Your task to perform on an android device: turn on priority inbox in the gmail app Image 0: 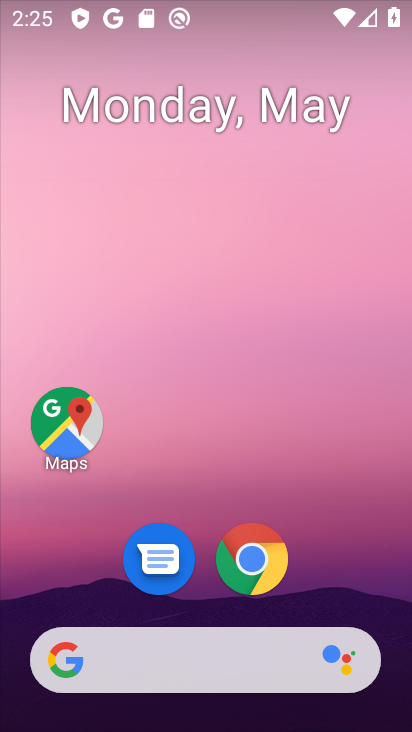
Step 0: drag from (351, 583) to (385, 0)
Your task to perform on an android device: turn on priority inbox in the gmail app Image 1: 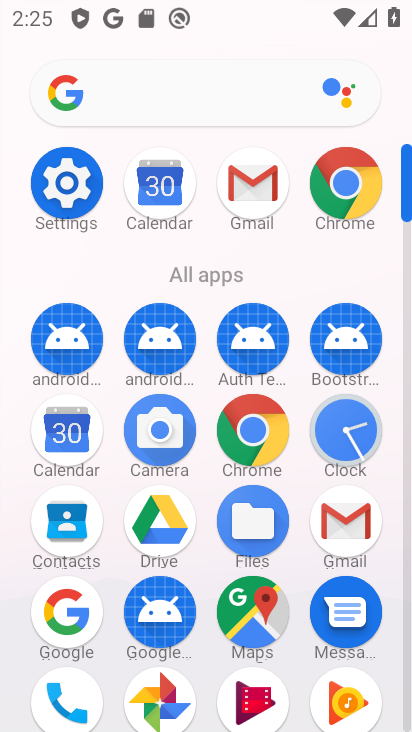
Step 1: click (358, 518)
Your task to perform on an android device: turn on priority inbox in the gmail app Image 2: 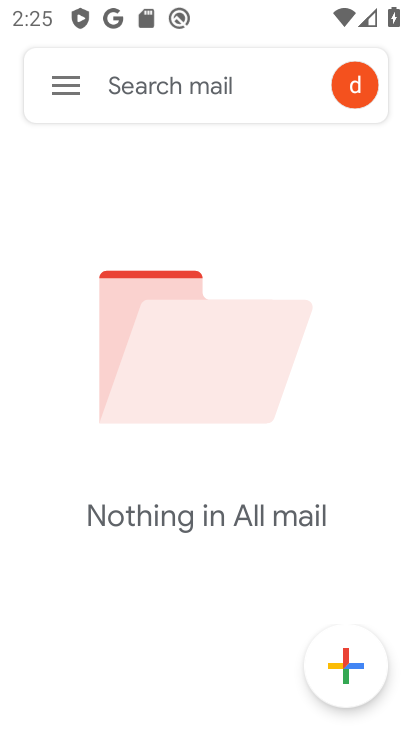
Step 2: click (71, 94)
Your task to perform on an android device: turn on priority inbox in the gmail app Image 3: 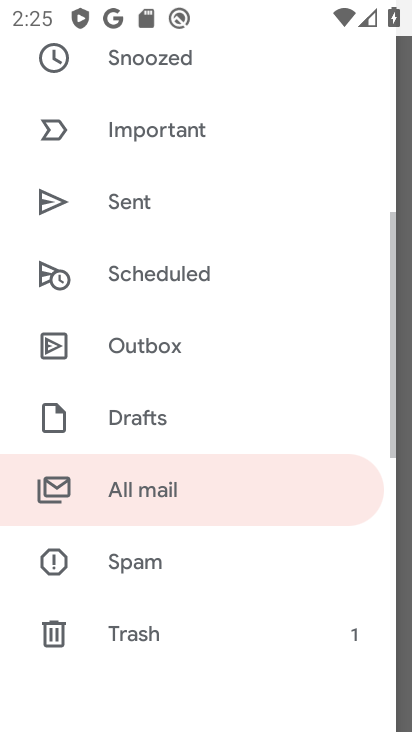
Step 3: drag from (185, 563) to (231, 153)
Your task to perform on an android device: turn on priority inbox in the gmail app Image 4: 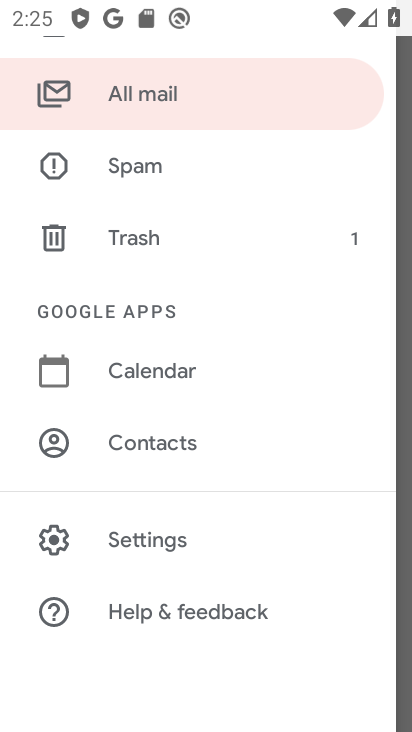
Step 4: click (170, 544)
Your task to perform on an android device: turn on priority inbox in the gmail app Image 5: 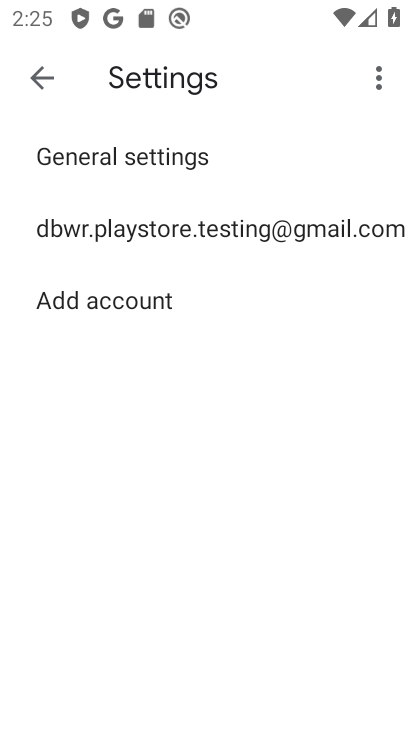
Step 5: click (121, 230)
Your task to perform on an android device: turn on priority inbox in the gmail app Image 6: 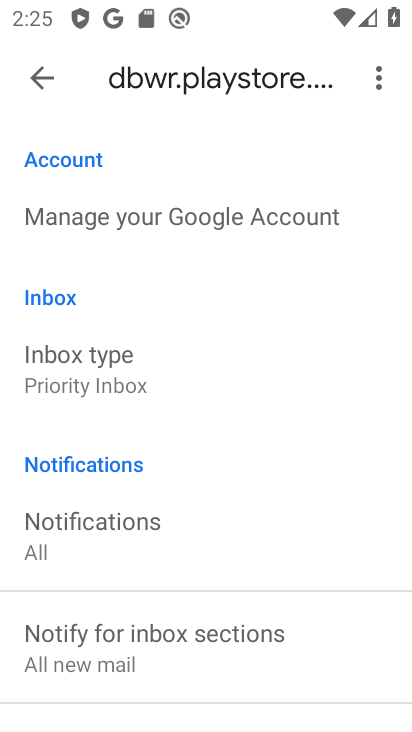
Step 6: click (91, 364)
Your task to perform on an android device: turn on priority inbox in the gmail app Image 7: 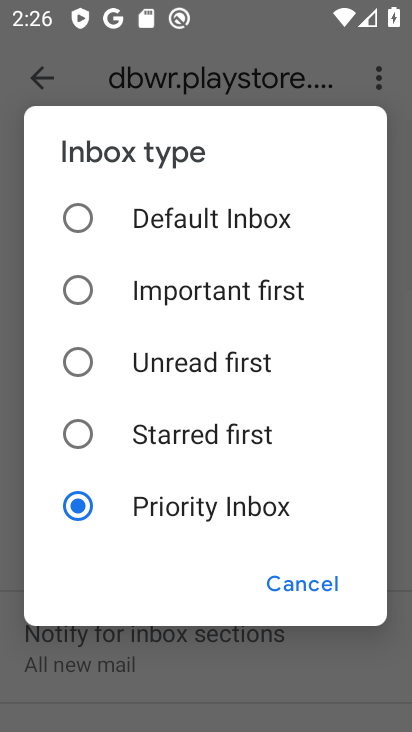
Step 7: click (169, 509)
Your task to perform on an android device: turn on priority inbox in the gmail app Image 8: 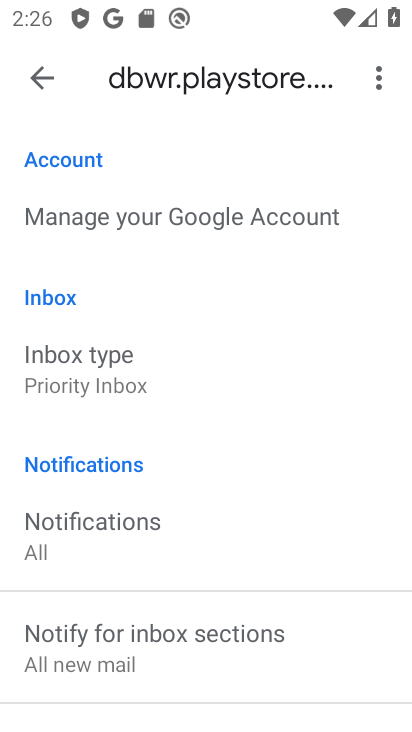
Step 8: task complete